Your task to perform on an android device: change timer sound Image 0: 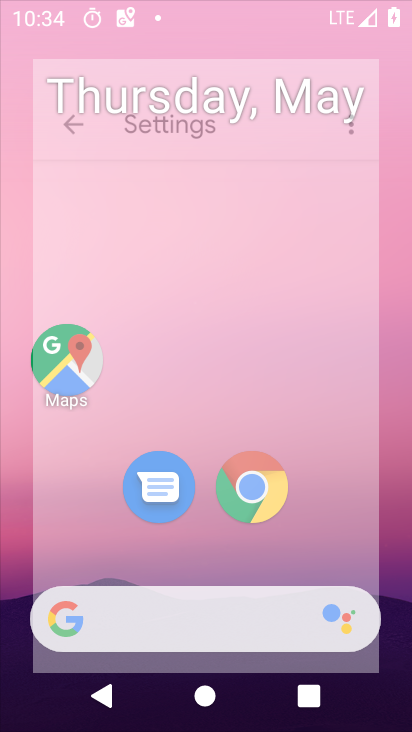
Step 0: drag from (211, 499) to (188, 13)
Your task to perform on an android device: change timer sound Image 1: 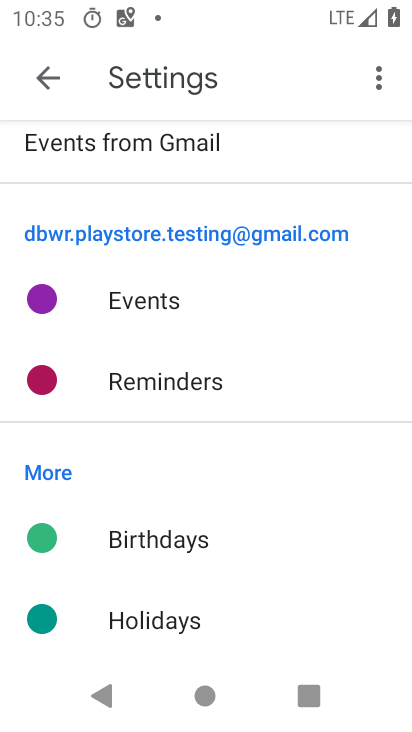
Step 1: press home button
Your task to perform on an android device: change timer sound Image 2: 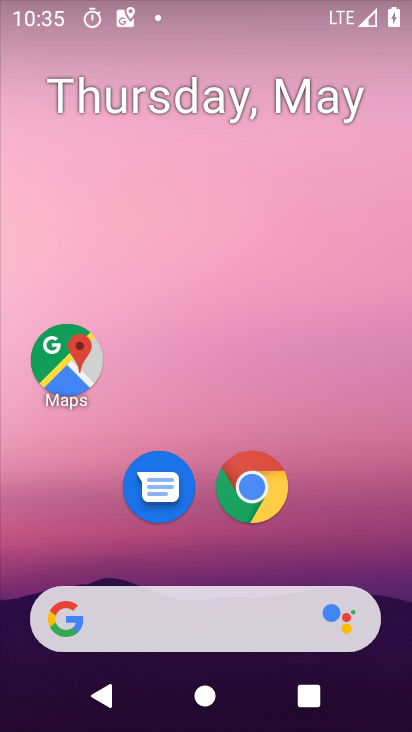
Step 2: drag from (62, 690) to (1, 1)
Your task to perform on an android device: change timer sound Image 3: 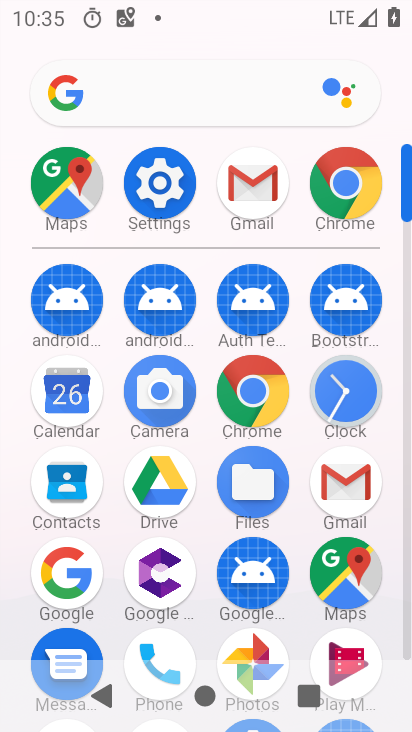
Step 3: click (342, 400)
Your task to perform on an android device: change timer sound Image 4: 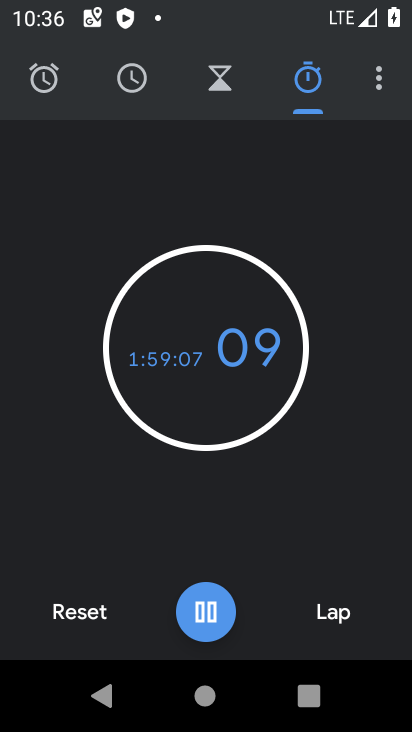
Step 4: click (392, 94)
Your task to perform on an android device: change timer sound Image 5: 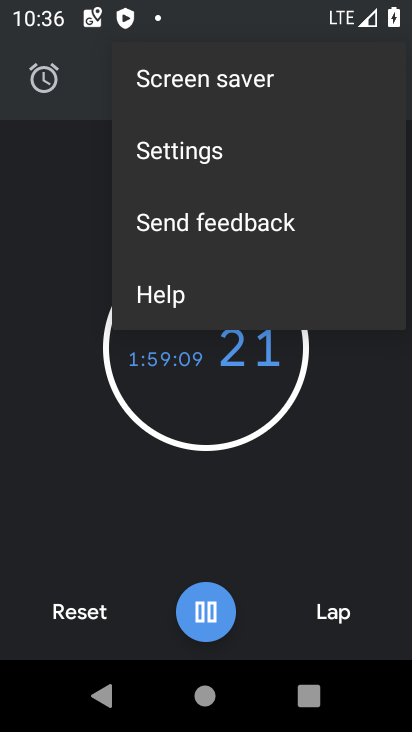
Step 5: click (214, 165)
Your task to perform on an android device: change timer sound Image 6: 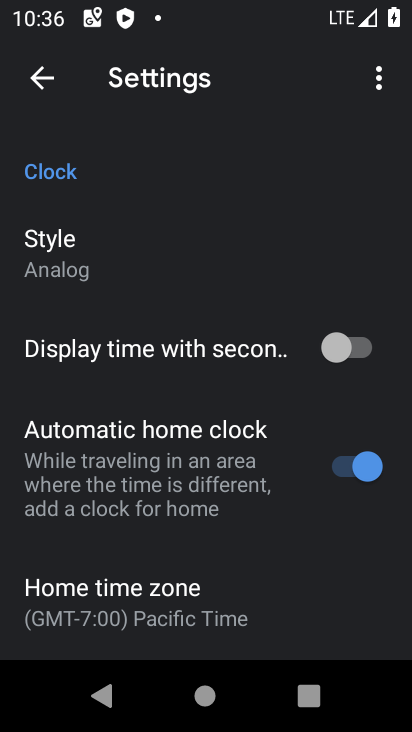
Step 6: drag from (141, 500) to (128, 89)
Your task to perform on an android device: change timer sound Image 7: 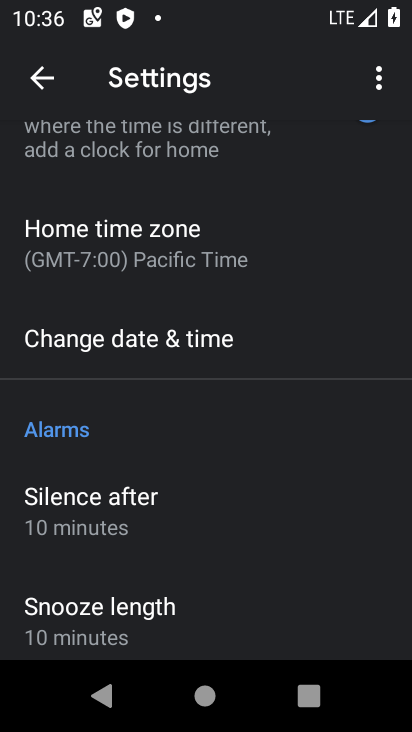
Step 7: drag from (174, 503) to (215, 128)
Your task to perform on an android device: change timer sound Image 8: 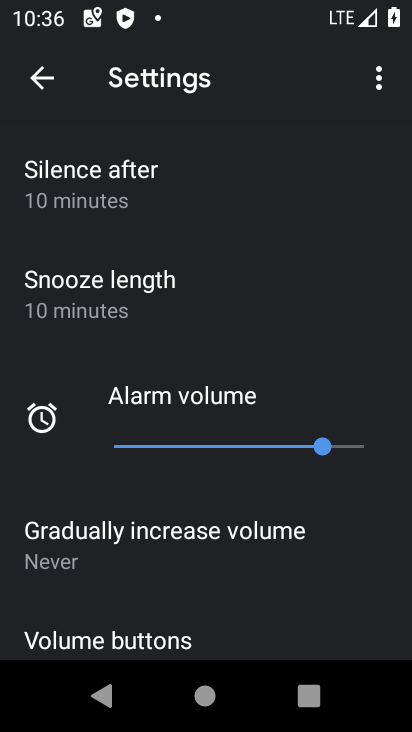
Step 8: drag from (206, 515) to (267, 130)
Your task to perform on an android device: change timer sound Image 9: 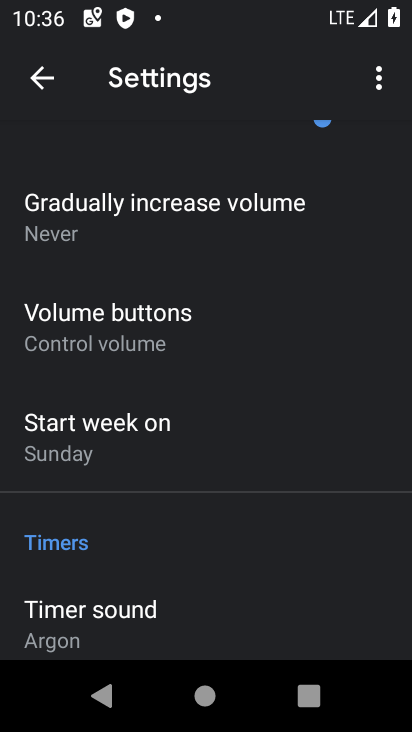
Step 9: click (213, 624)
Your task to perform on an android device: change timer sound Image 10: 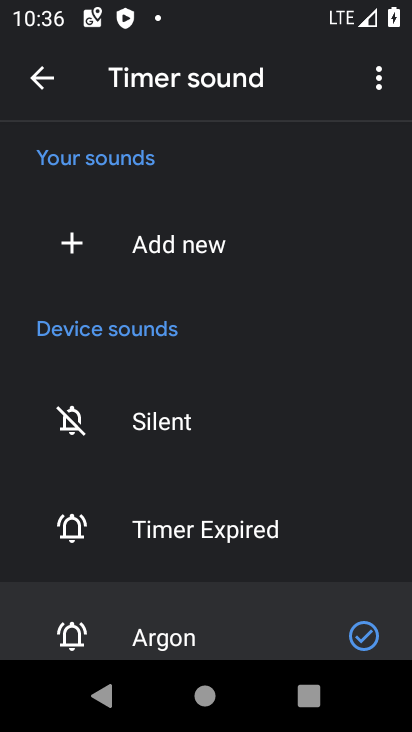
Step 10: click (196, 546)
Your task to perform on an android device: change timer sound Image 11: 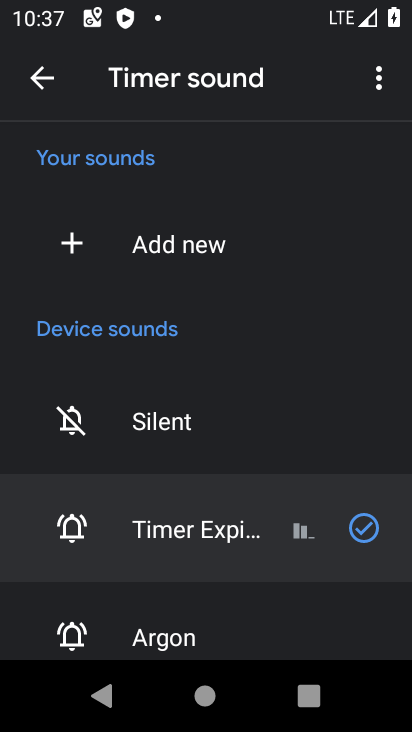
Step 11: task complete